Your task to perform on an android device: Open Reddit.com Image 0: 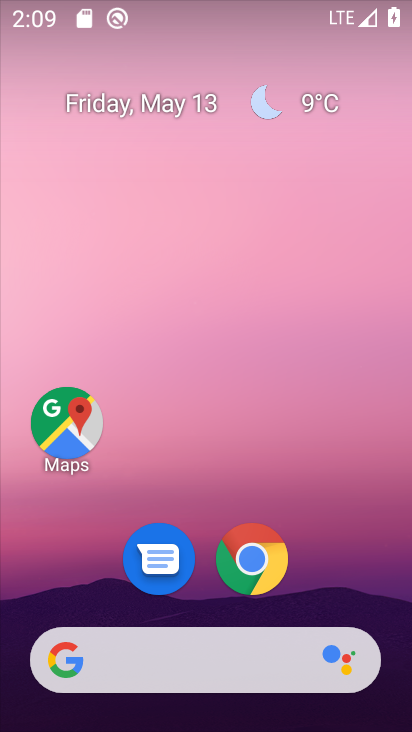
Step 0: click (246, 555)
Your task to perform on an android device: Open Reddit.com Image 1: 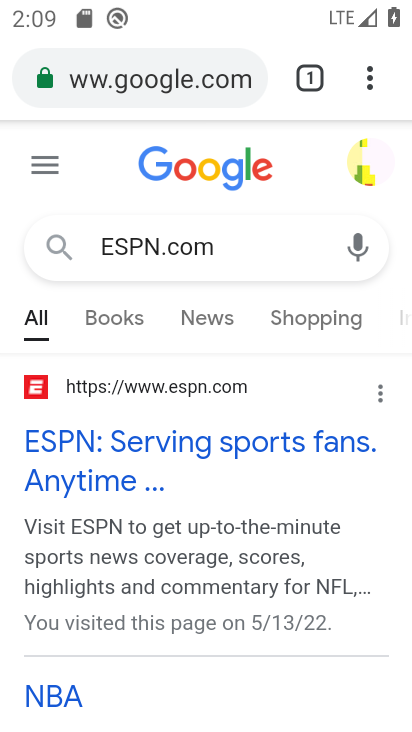
Step 1: click (255, 80)
Your task to perform on an android device: Open Reddit.com Image 2: 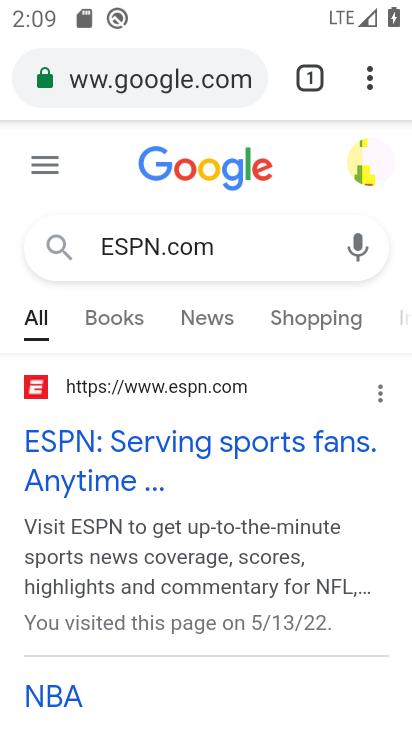
Step 2: click (255, 80)
Your task to perform on an android device: Open Reddit.com Image 3: 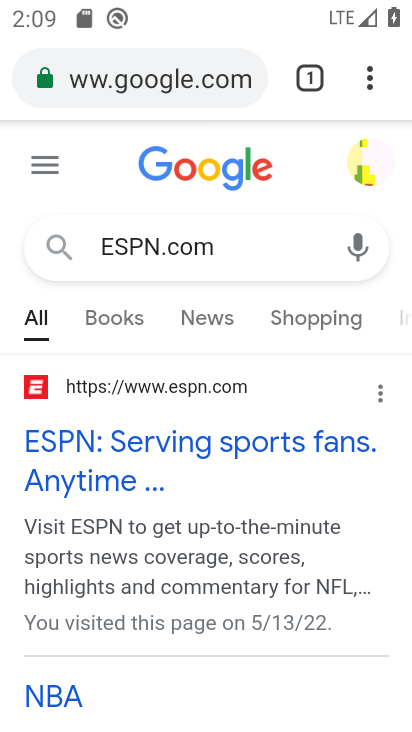
Step 3: click (249, 76)
Your task to perform on an android device: Open Reddit.com Image 4: 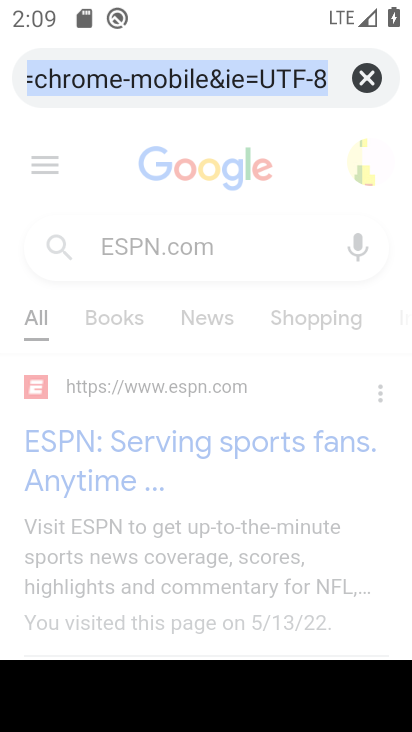
Step 4: click (279, 76)
Your task to perform on an android device: Open Reddit.com Image 5: 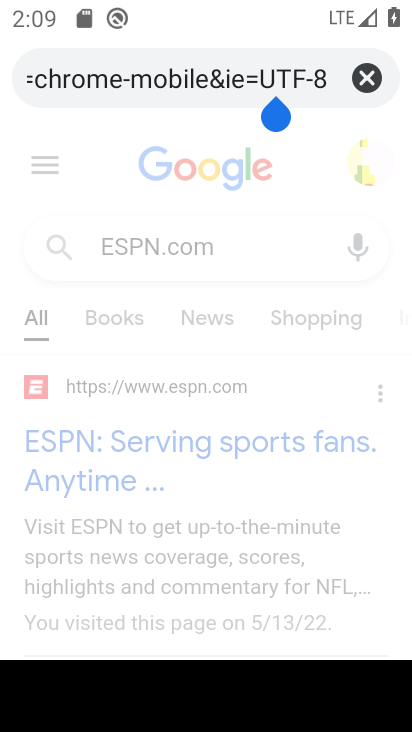
Step 5: click (283, 77)
Your task to perform on an android device: Open Reddit.com Image 6: 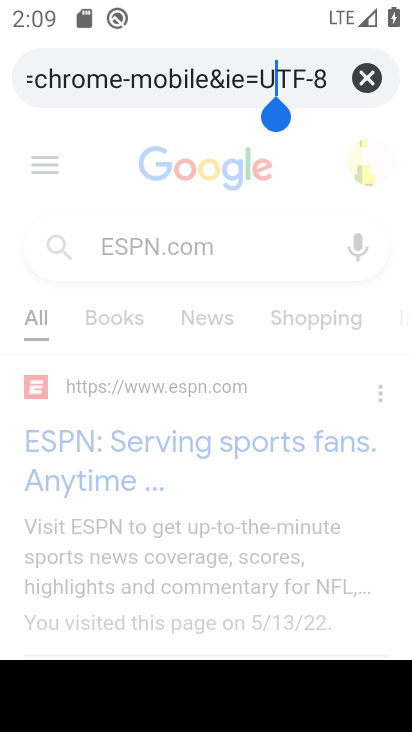
Step 6: click (335, 76)
Your task to perform on an android device: Open Reddit.com Image 7: 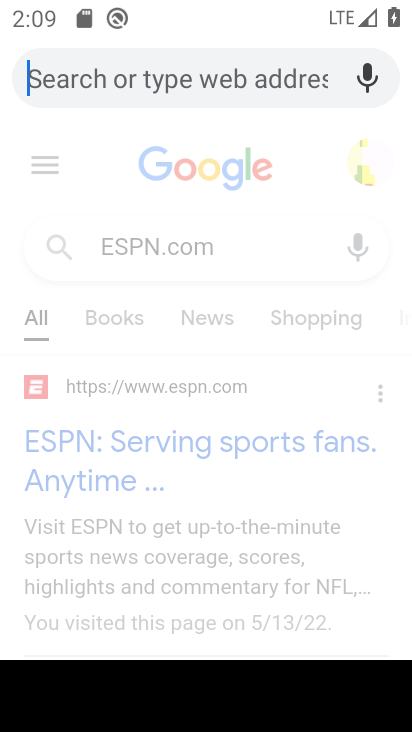
Step 7: type "Reddit.com"
Your task to perform on an android device: Open Reddit.com Image 8: 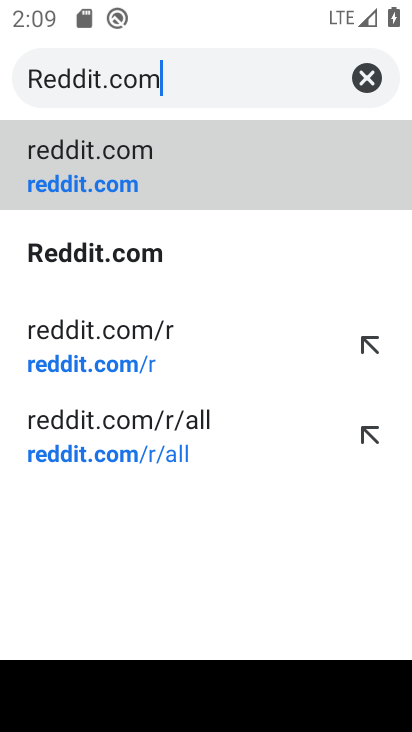
Step 8: click (65, 177)
Your task to perform on an android device: Open Reddit.com Image 9: 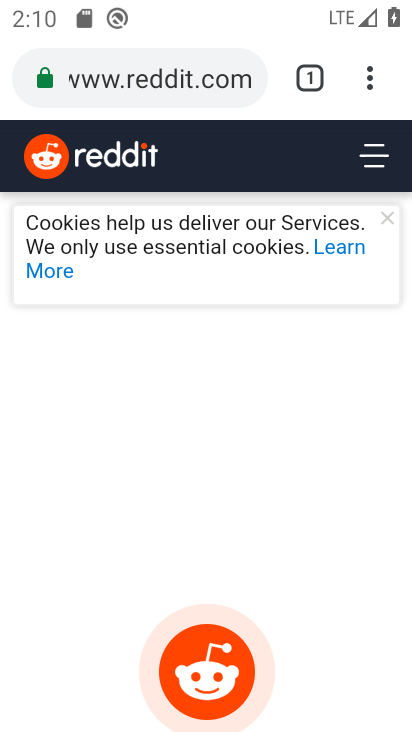
Step 9: task complete